Your task to perform on an android device: toggle javascript in the chrome app Image 0: 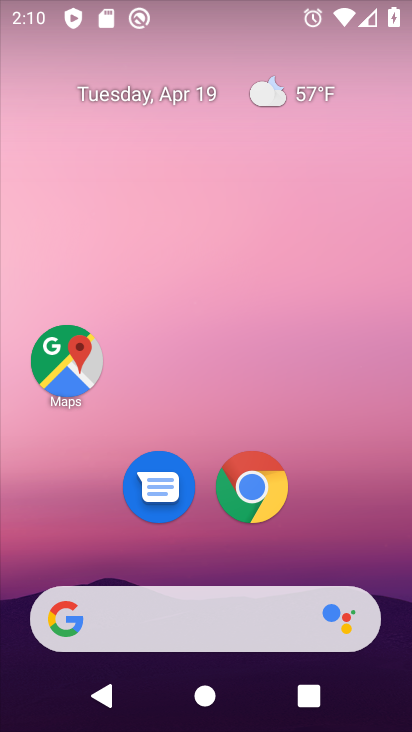
Step 0: drag from (324, 519) to (325, 79)
Your task to perform on an android device: toggle javascript in the chrome app Image 1: 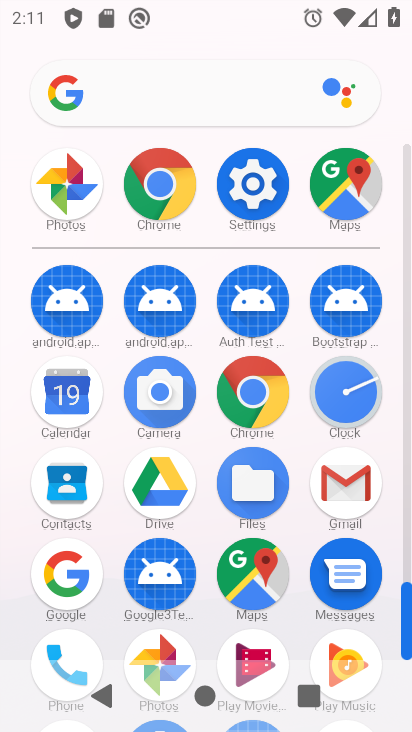
Step 1: click (256, 401)
Your task to perform on an android device: toggle javascript in the chrome app Image 2: 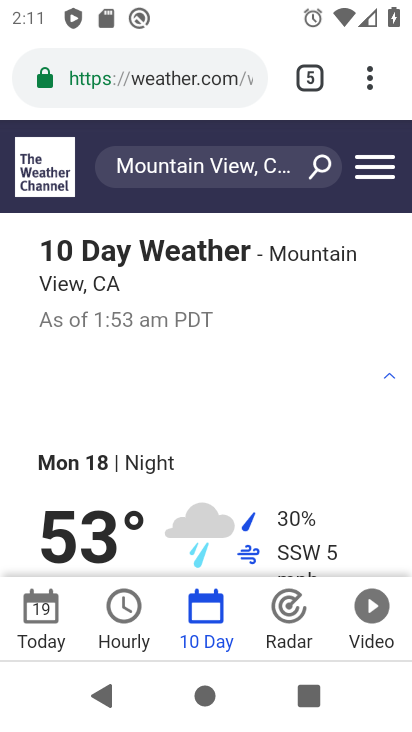
Step 2: click (371, 88)
Your task to perform on an android device: toggle javascript in the chrome app Image 3: 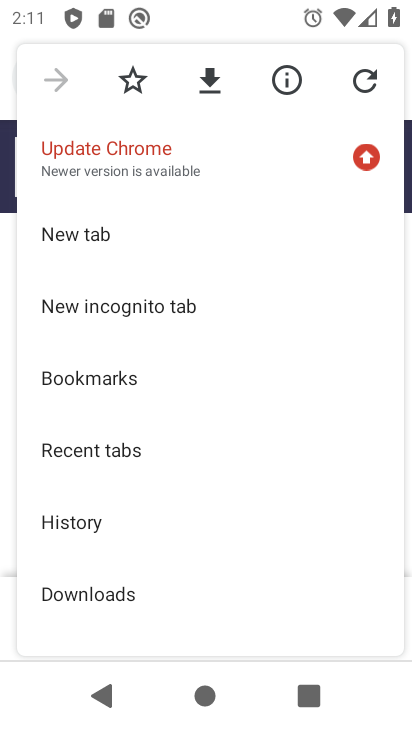
Step 3: drag from (215, 584) to (299, 229)
Your task to perform on an android device: toggle javascript in the chrome app Image 4: 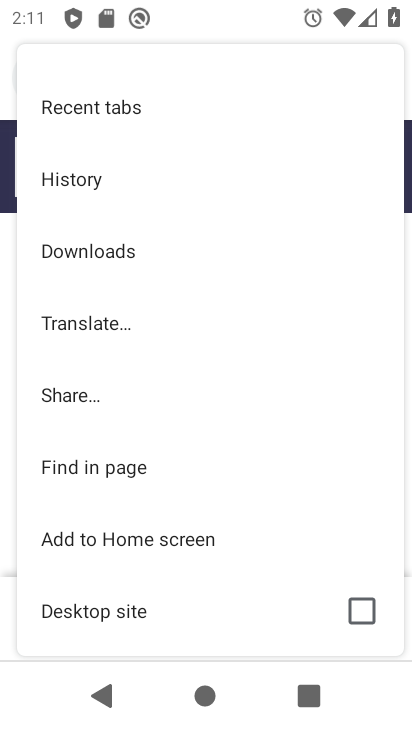
Step 4: drag from (195, 588) to (217, 253)
Your task to perform on an android device: toggle javascript in the chrome app Image 5: 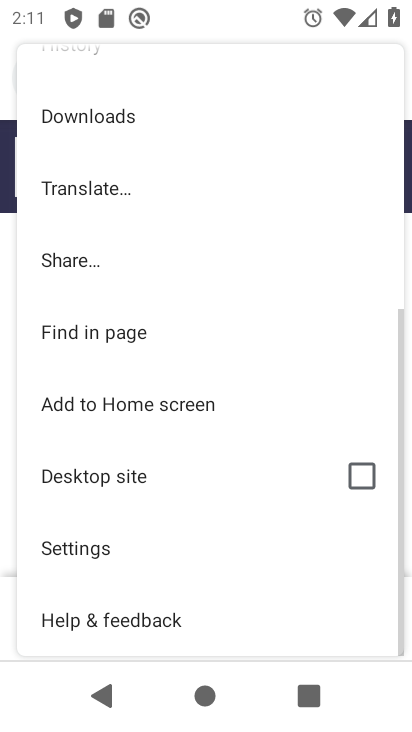
Step 5: click (101, 546)
Your task to perform on an android device: toggle javascript in the chrome app Image 6: 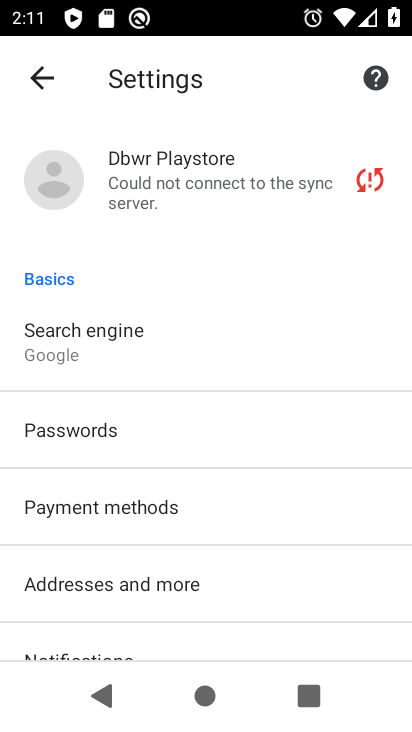
Step 6: drag from (253, 561) to (284, 331)
Your task to perform on an android device: toggle javascript in the chrome app Image 7: 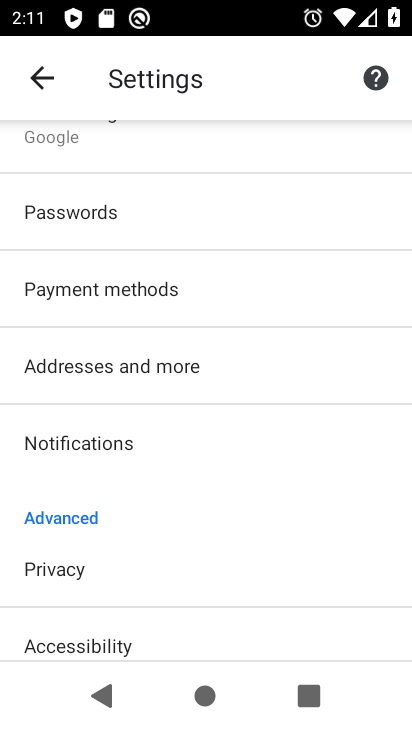
Step 7: drag from (284, 473) to (329, 255)
Your task to perform on an android device: toggle javascript in the chrome app Image 8: 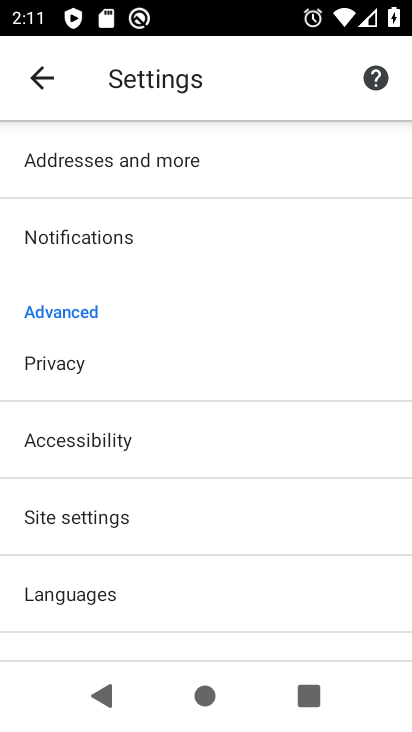
Step 8: click (145, 524)
Your task to perform on an android device: toggle javascript in the chrome app Image 9: 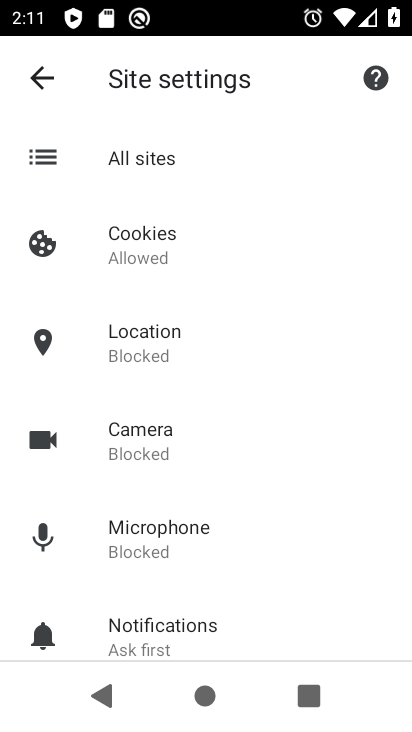
Step 9: drag from (238, 555) to (231, 198)
Your task to perform on an android device: toggle javascript in the chrome app Image 10: 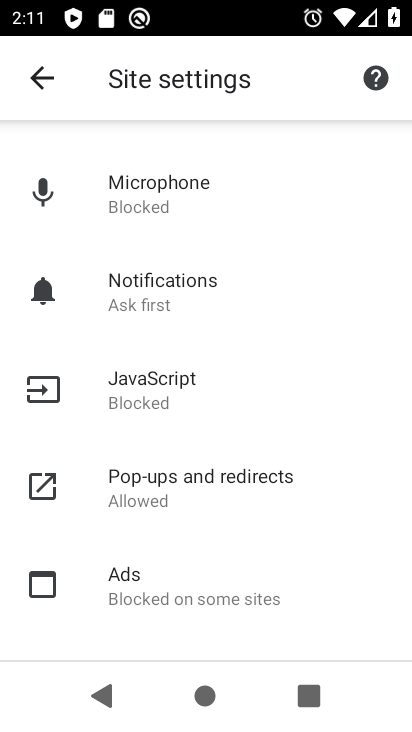
Step 10: click (188, 374)
Your task to perform on an android device: toggle javascript in the chrome app Image 11: 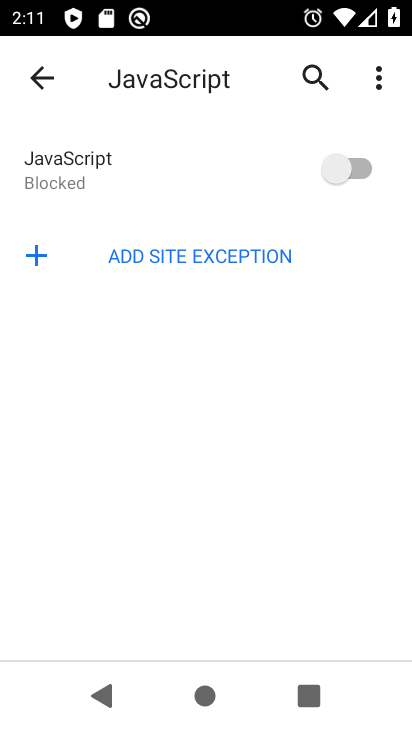
Step 11: click (367, 175)
Your task to perform on an android device: toggle javascript in the chrome app Image 12: 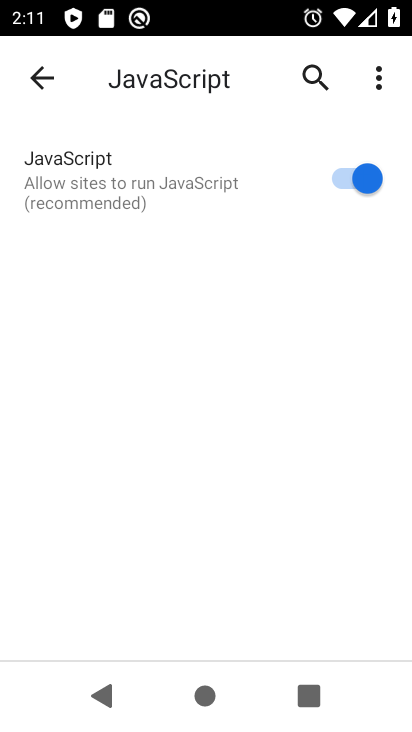
Step 12: task complete